Your task to perform on an android device: Search for seafood restaurants on Google Maps Image 0: 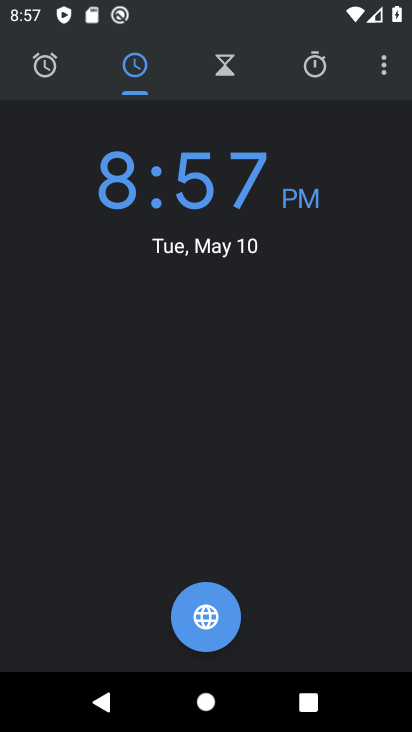
Step 0: press home button
Your task to perform on an android device: Search for seafood restaurants on Google Maps Image 1: 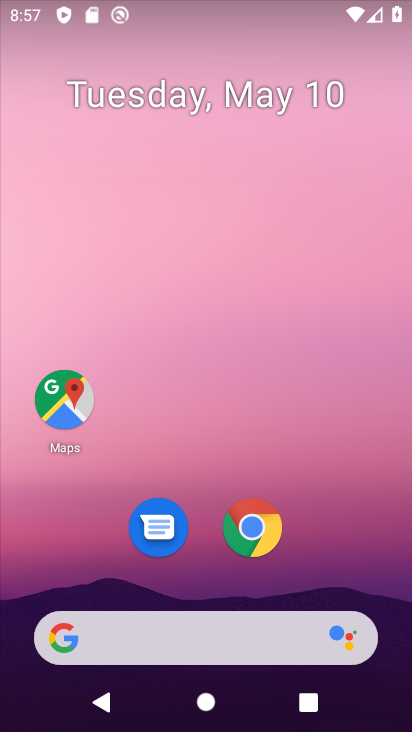
Step 1: click (46, 417)
Your task to perform on an android device: Search for seafood restaurants on Google Maps Image 2: 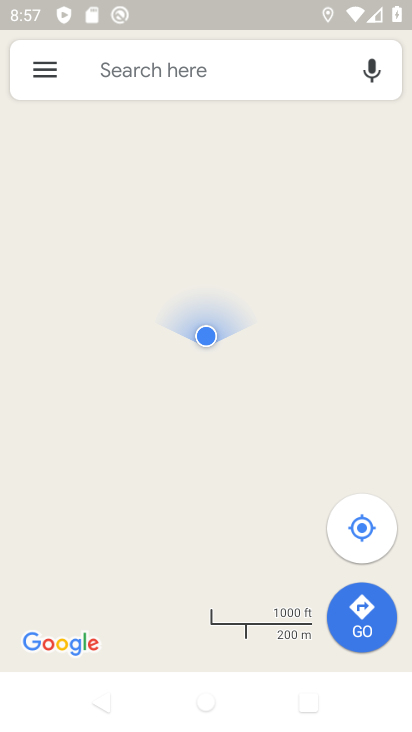
Step 2: click (183, 64)
Your task to perform on an android device: Search for seafood restaurants on Google Maps Image 3: 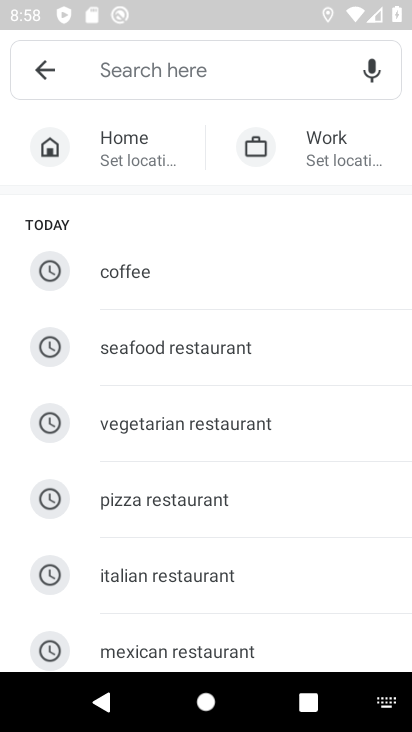
Step 3: click (178, 354)
Your task to perform on an android device: Search for seafood restaurants on Google Maps Image 4: 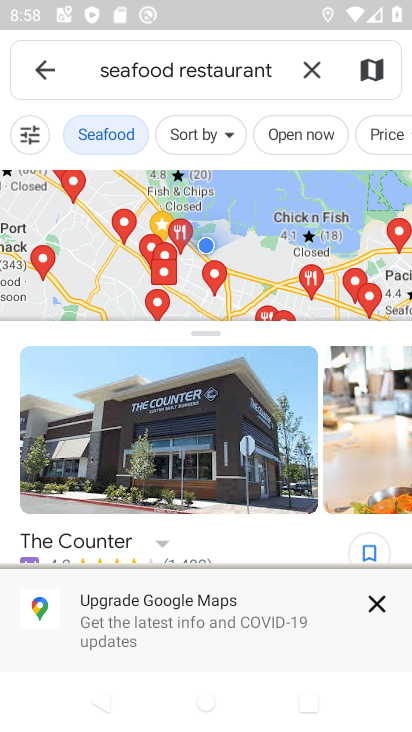
Step 4: task complete